Your task to perform on an android device: Open calendar and show me the third week of next month Image 0: 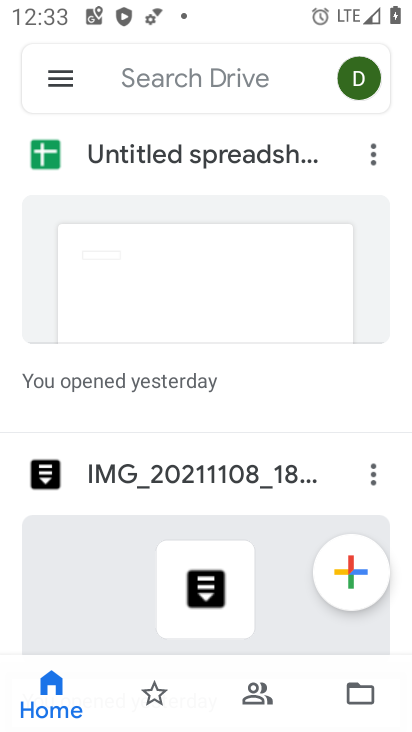
Step 0: press home button
Your task to perform on an android device: Open calendar and show me the third week of next month Image 1: 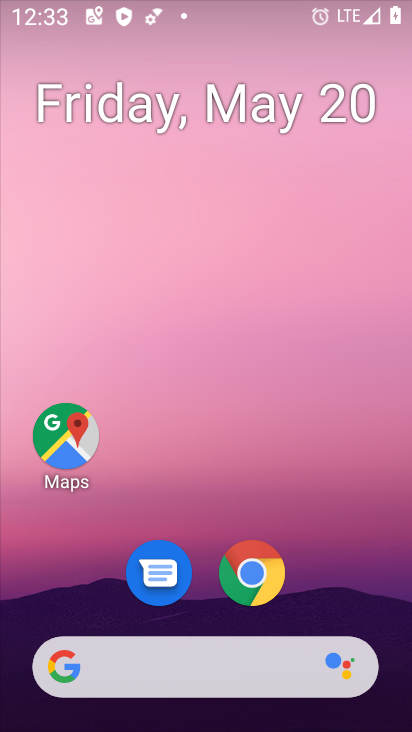
Step 1: drag from (306, 581) to (346, 72)
Your task to perform on an android device: Open calendar and show me the third week of next month Image 2: 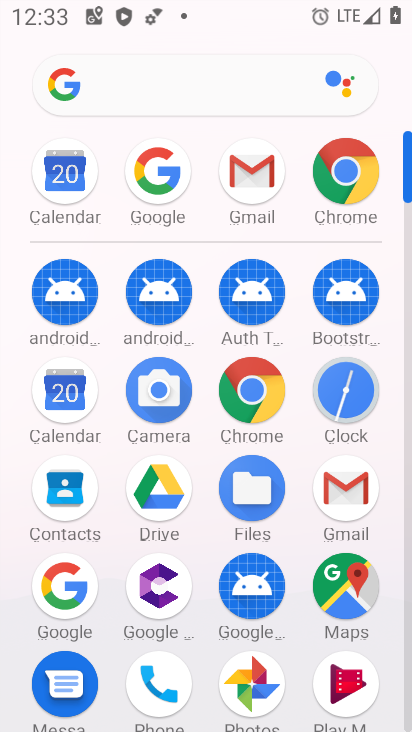
Step 2: click (67, 391)
Your task to perform on an android device: Open calendar and show me the third week of next month Image 3: 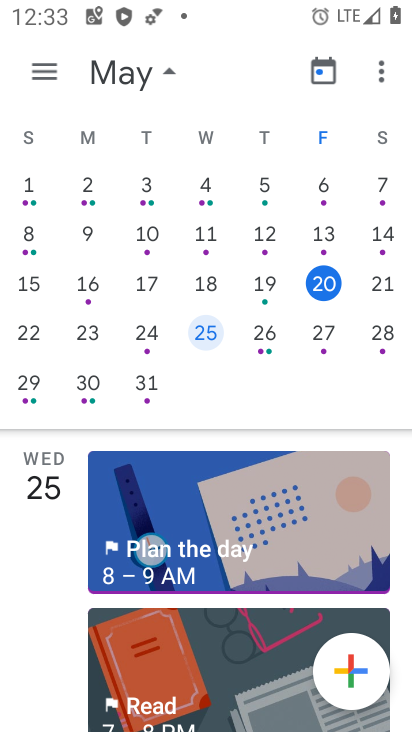
Step 3: drag from (360, 398) to (9, 324)
Your task to perform on an android device: Open calendar and show me the third week of next month Image 4: 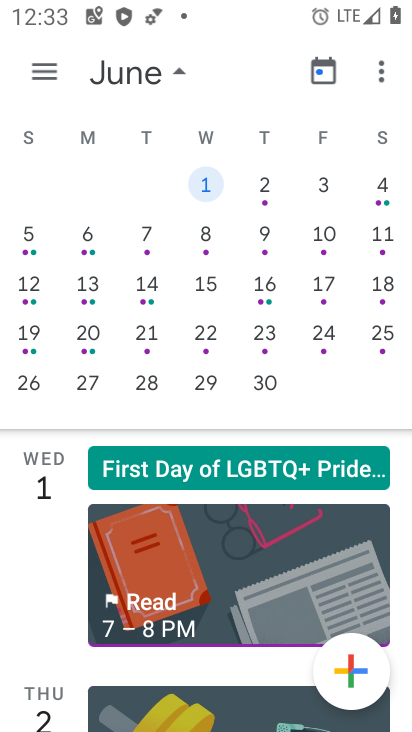
Step 4: click (208, 273)
Your task to perform on an android device: Open calendar and show me the third week of next month Image 5: 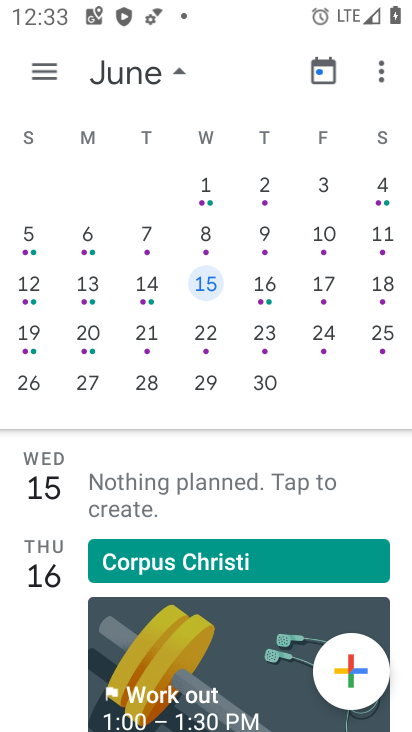
Step 5: task complete